Your task to perform on an android device: Clear all items from cart on costco.com. Add razer blade to the cart on costco.com, then select checkout. Image 0: 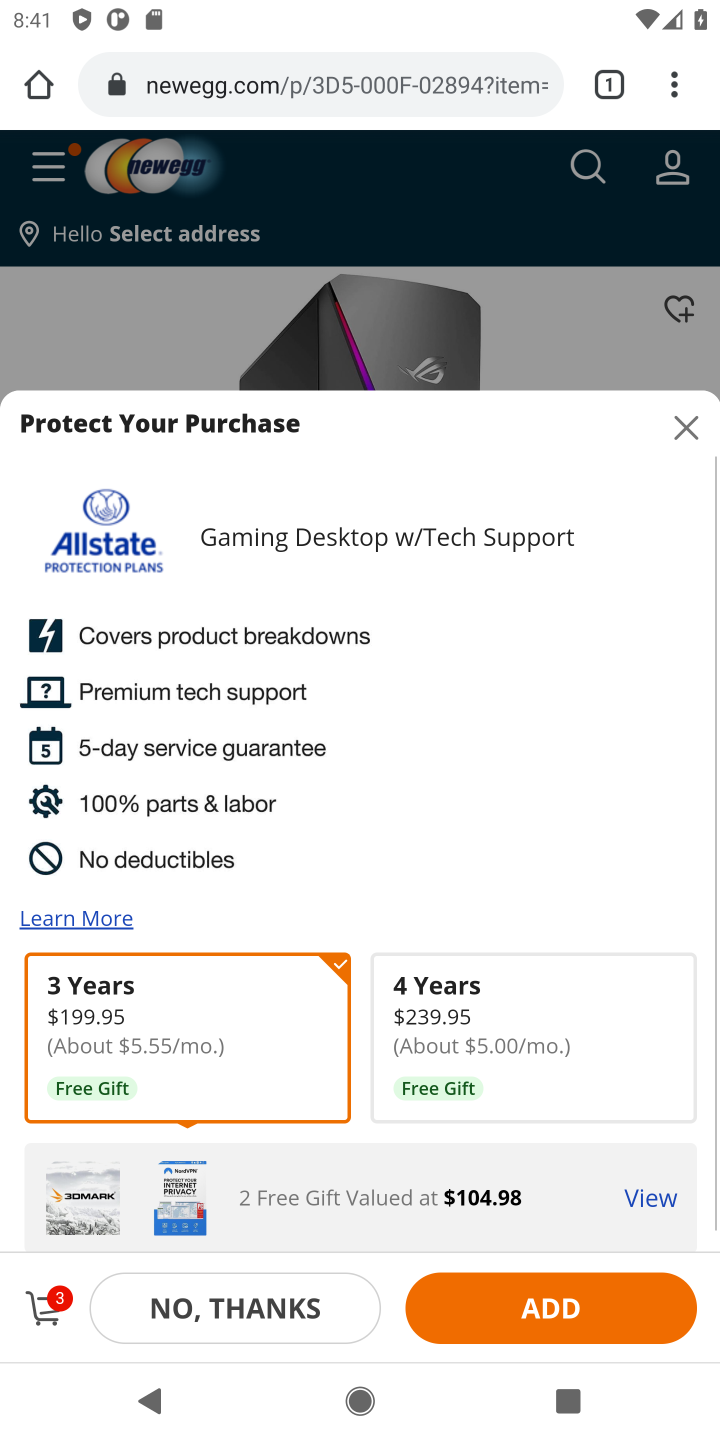
Step 0: click (322, 89)
Your task to perform on an android device: Clear all items from cart on costco.com. Add razer blade to the cart on costco.com, then select checkout. Image 1: 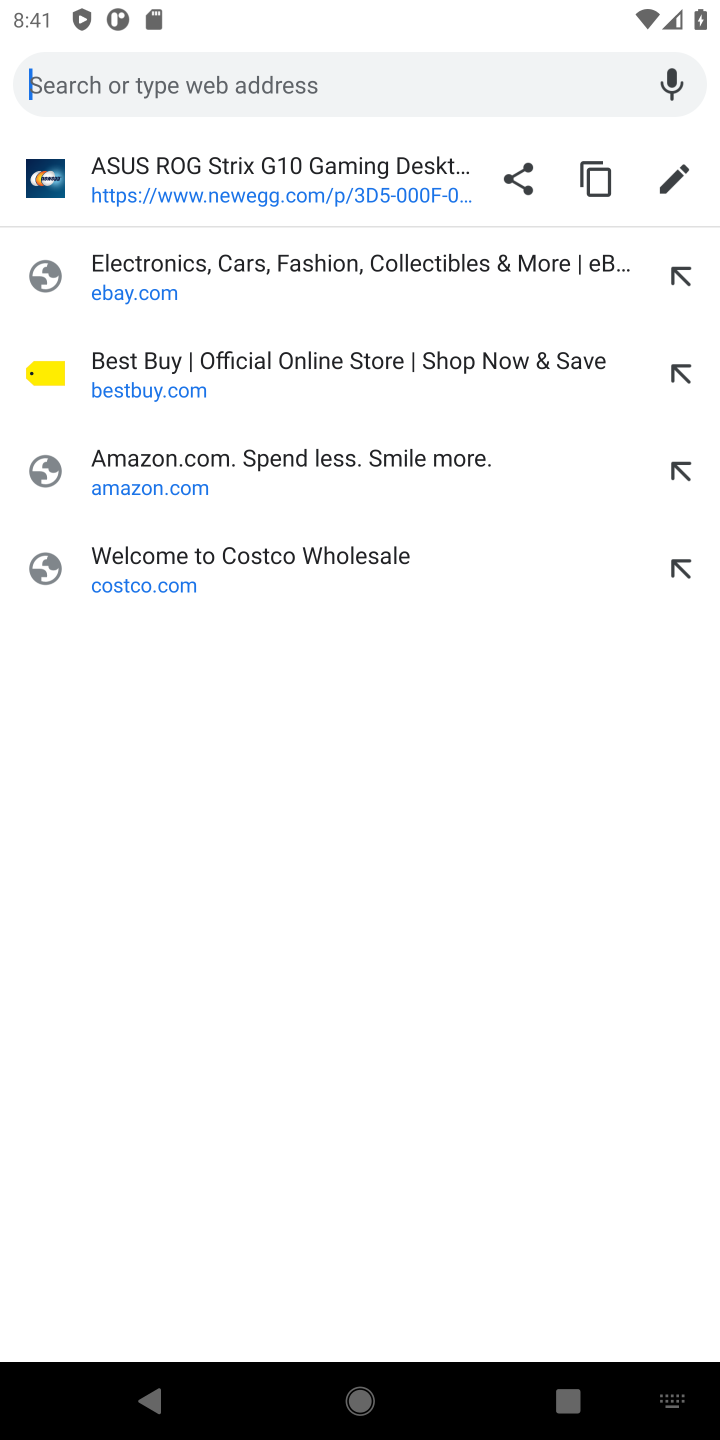
Step 1: click (129, 578)
Your task to perform on an android device: Clear all items from cart on costco.com. Add razer blade to the cart on costco.com, then select checkout. Image 2: 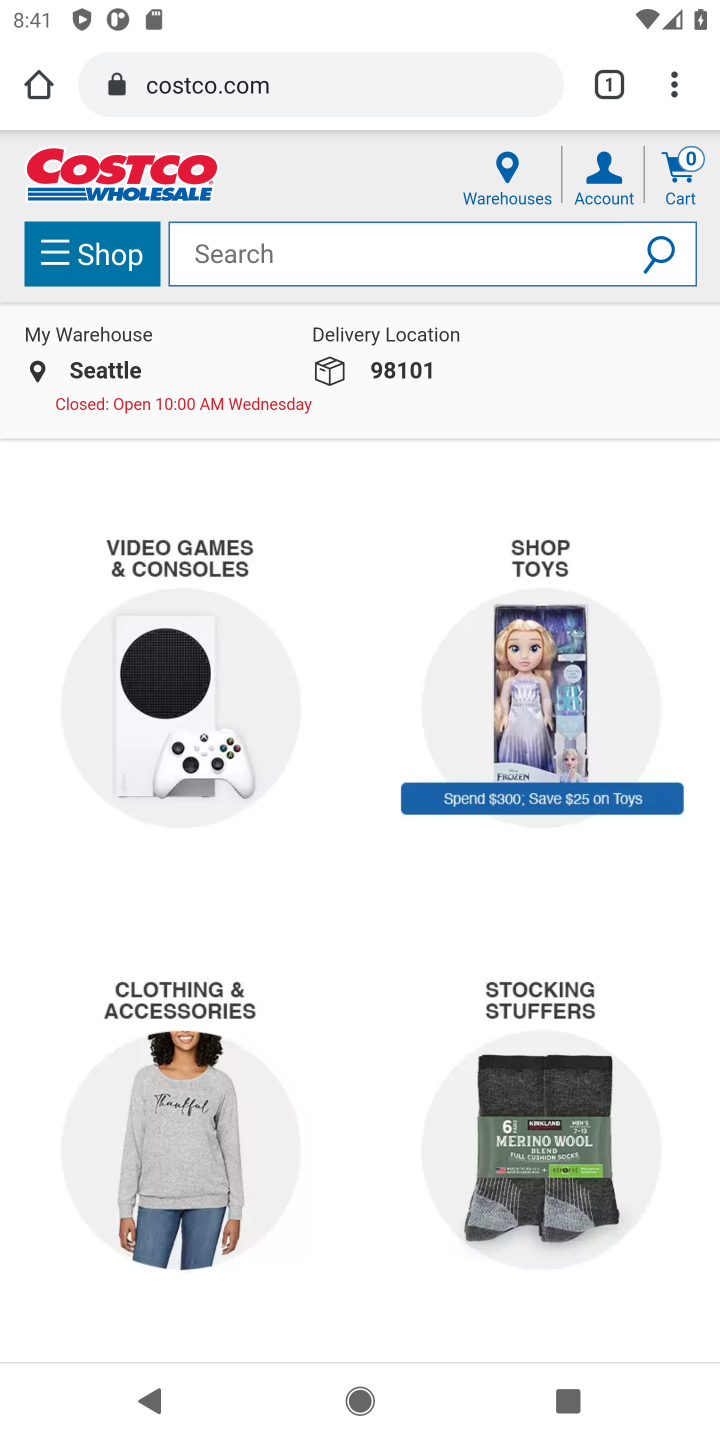
Step 2: click (684, 192)
Your task to perform on an android device: Clear all items from cart on costco.com. Add razer blade to the cart on costco.com, then select checkout. Image 3: 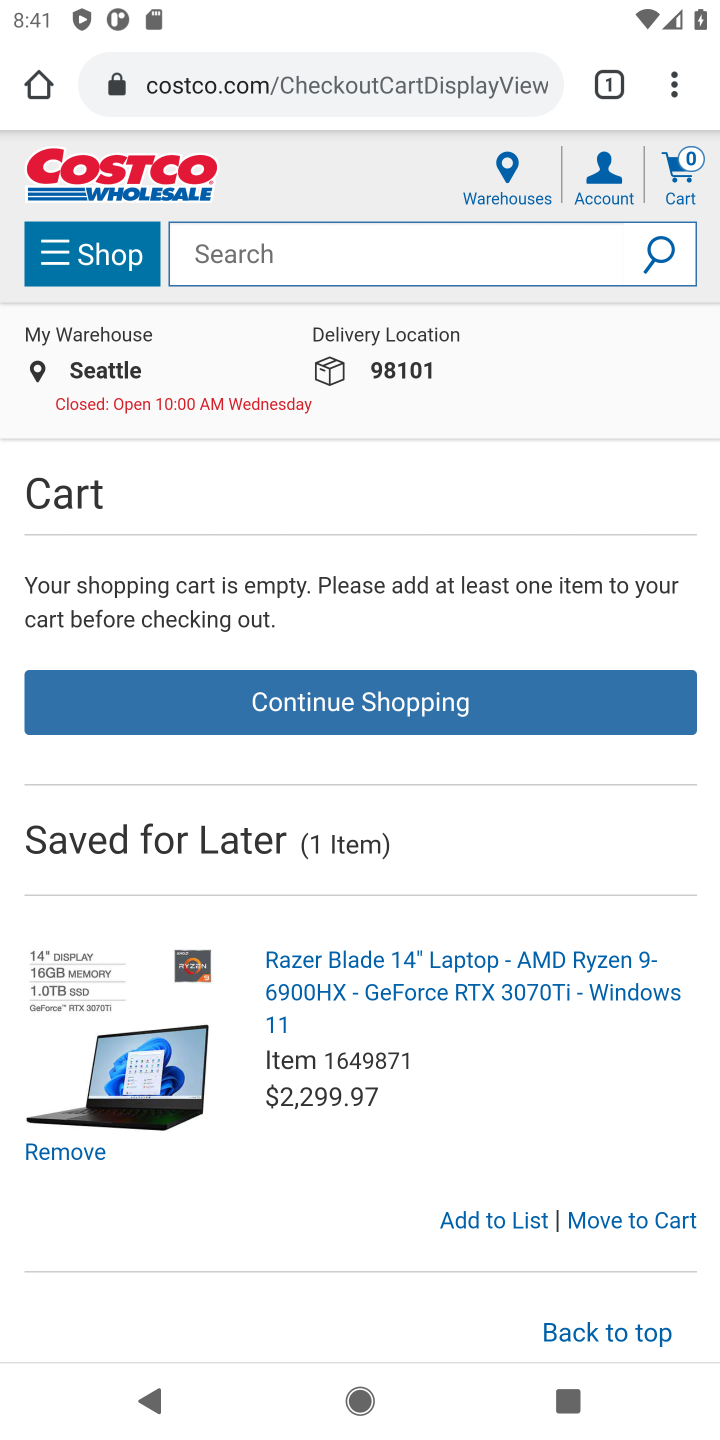
Step 3: click (252, 251)
Your task to perform on an android device: Clear all items from cart on costco.com. Add razer blade to the cart on costco.com, then select checkout. Image 4: 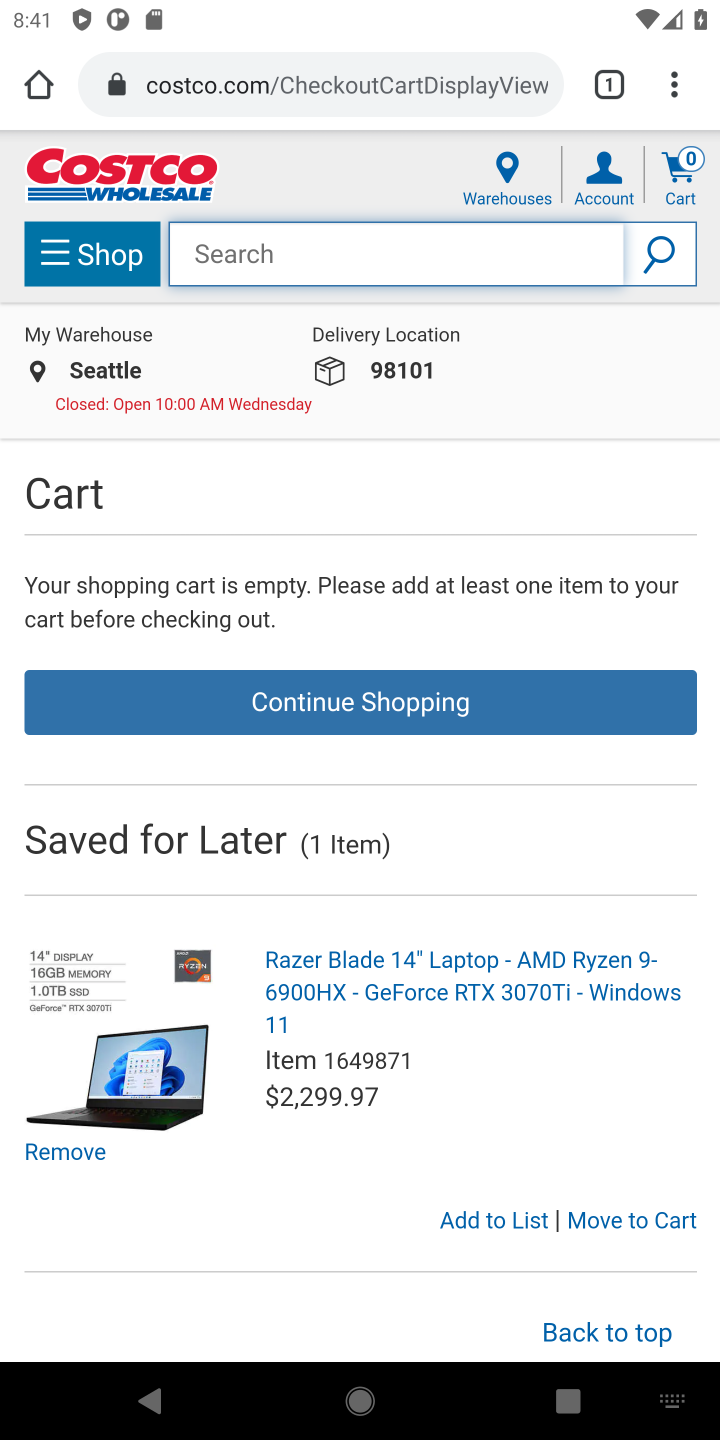
Step 4: type "razer blade"
Your task to perform on an android device: Clear all items from cart on costco.com. Add razer blade to the cart on costco.com, then select checkout. Image 5: 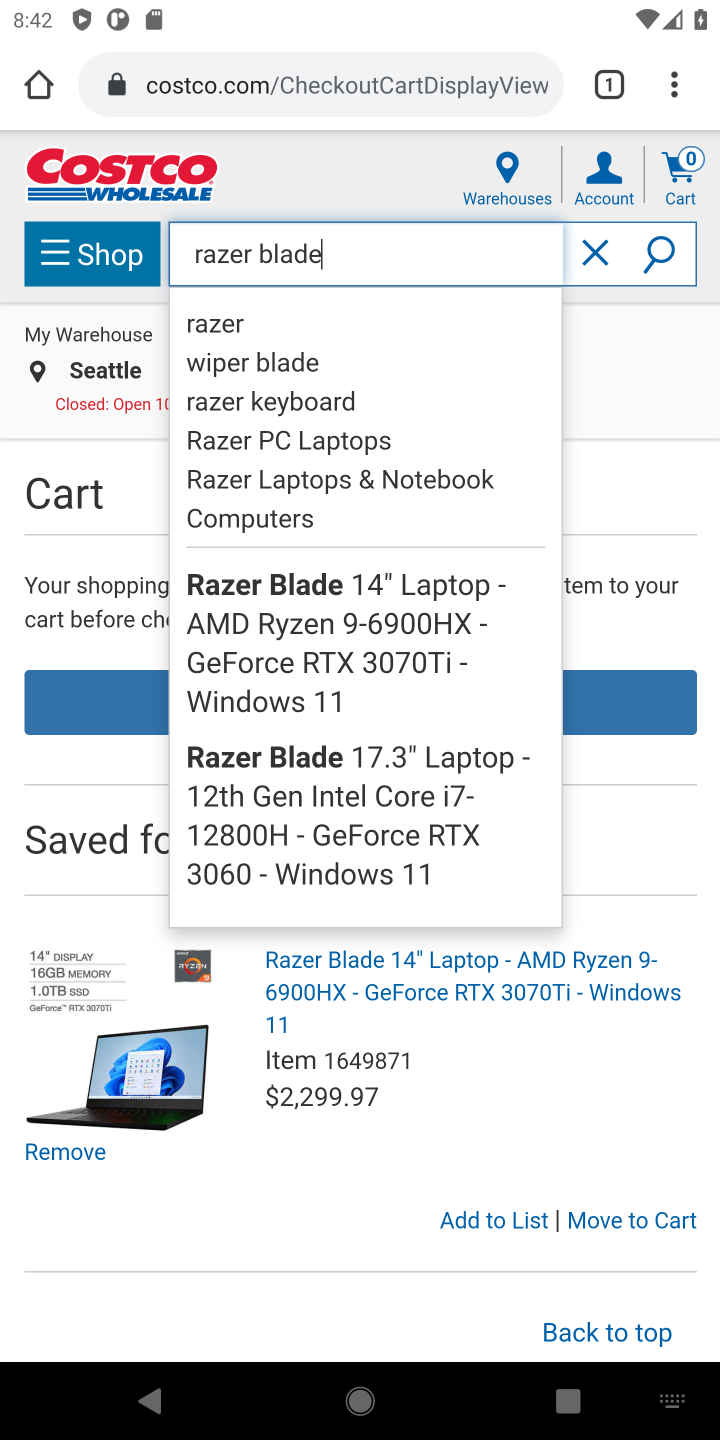
Step 5: click (661, 248)
Your task to perform on an android device: Clear all items from cart on costco.com. Add razer blade to the cart on costco.com, then select checkout. Image 6: 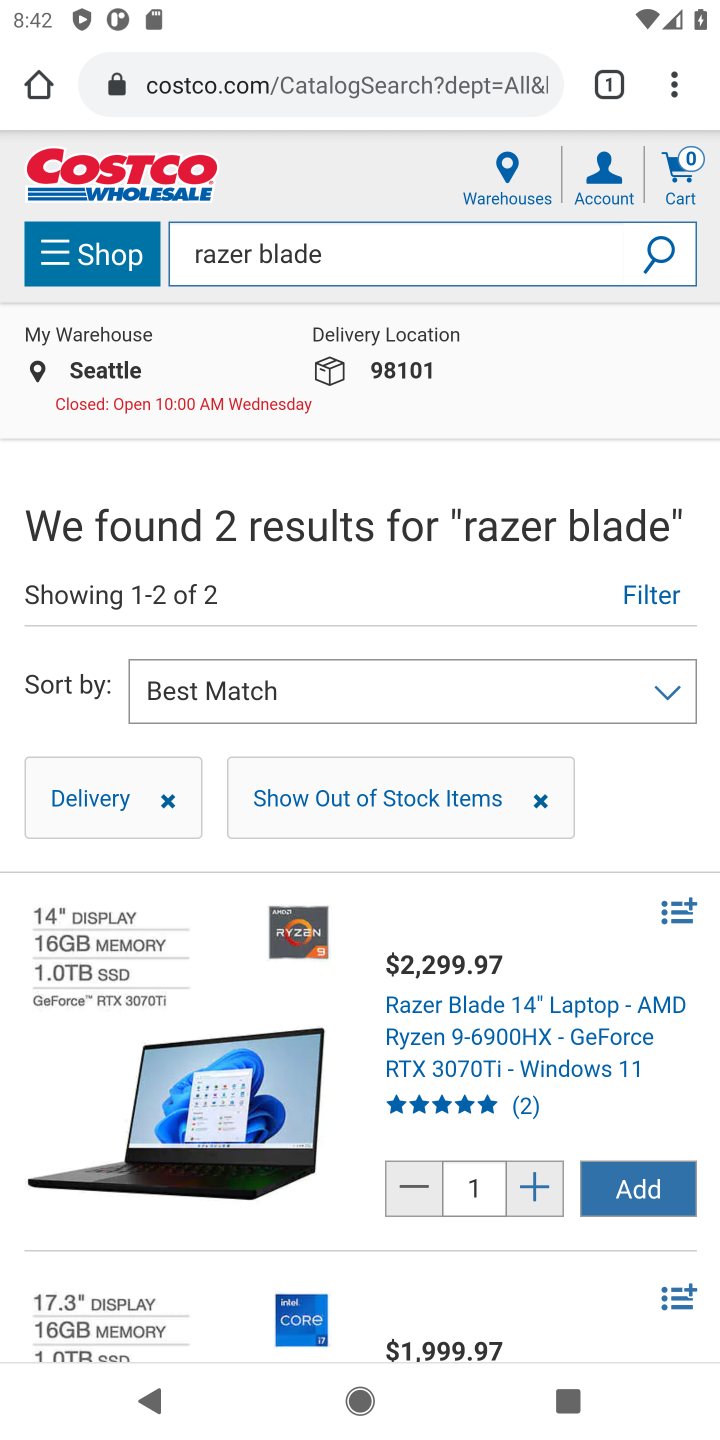
Step 6: click (647, 1194)
Your task to perform on an android device: Clear all items from cart on costco.com. Add razer blade to the cart on costco.com, then select checkout. Image 7: 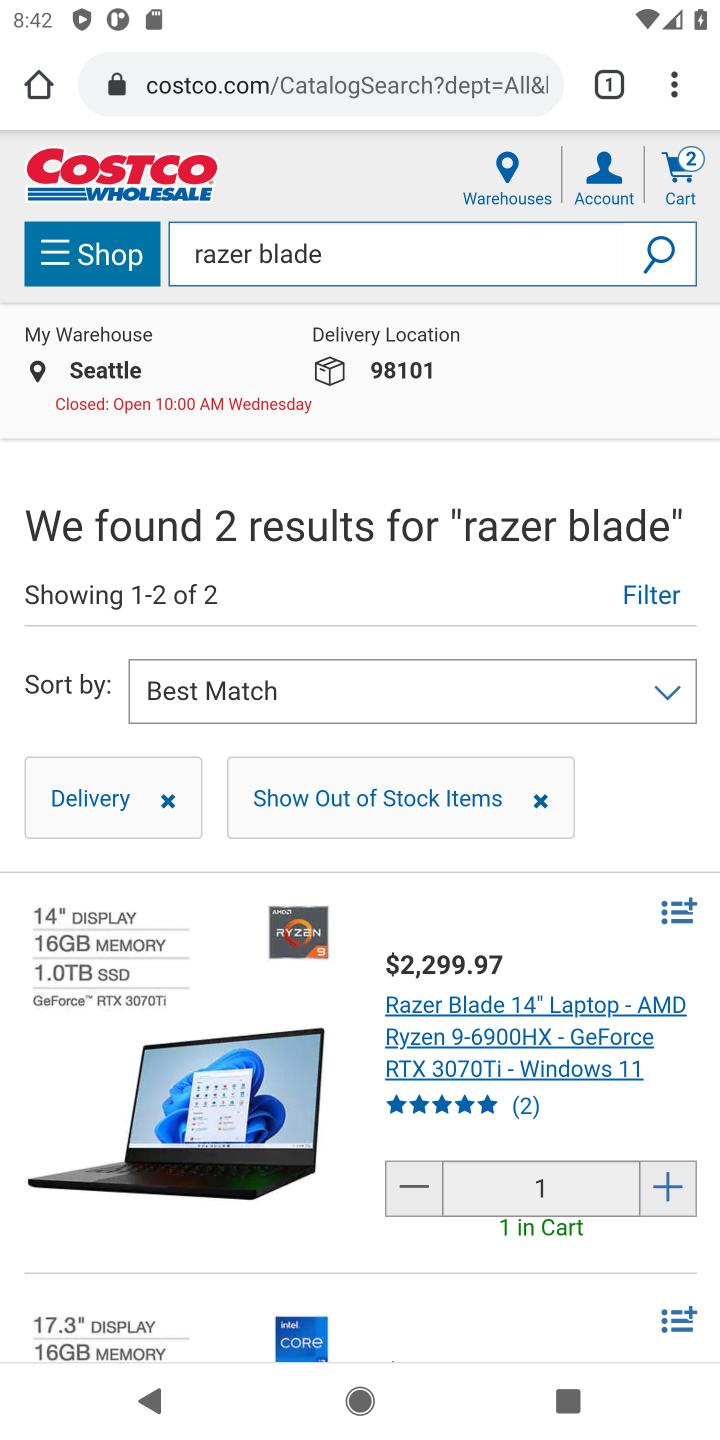
Step 7: click (689, 163)
Your task to perform on an android device: Clear all items from cart on costco.com. Add razer blade to the cart on costco.com, then select checkout. Image 8: 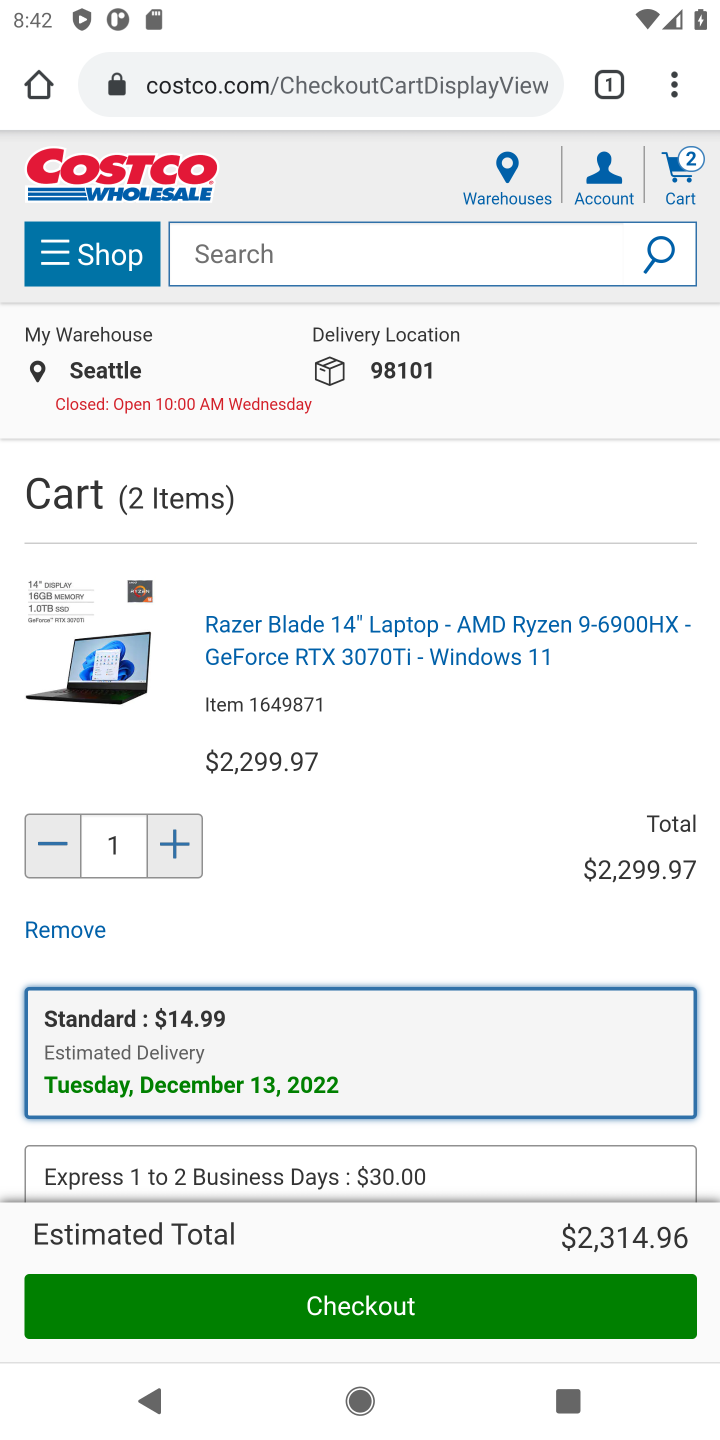
Step 8: click (349, 1309)
Your task to perform on an android device: Clear all items from cart on costco.com. Add razer blade to the cart on costco.com, then select checkout. Image 9: 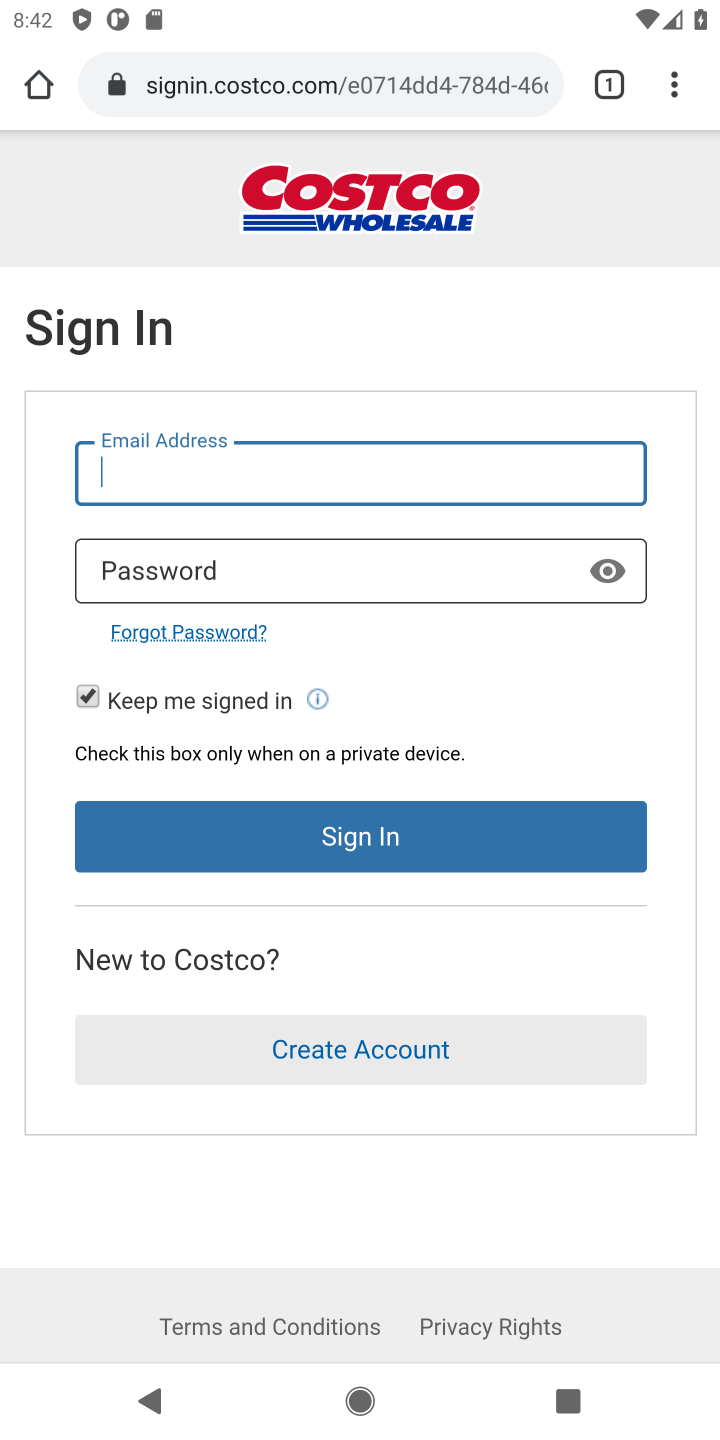
Step 9: task complete